Your task to perform on an android device: Open ESPN.com Image 0: 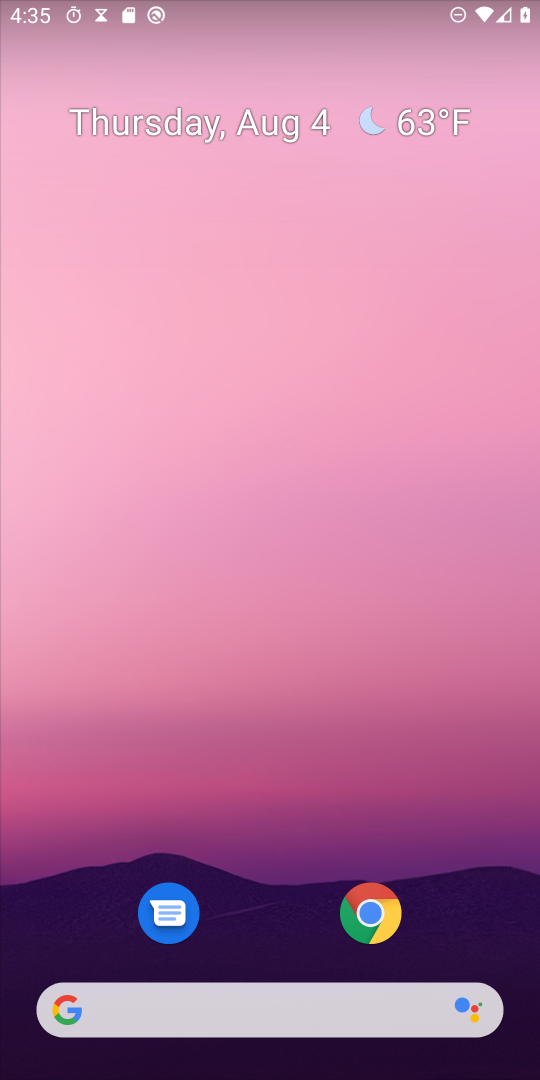
Step 0: drag from (361, 993) to (269, 25)
Your task to perform on an android device: Open ESPN.com Image 1: 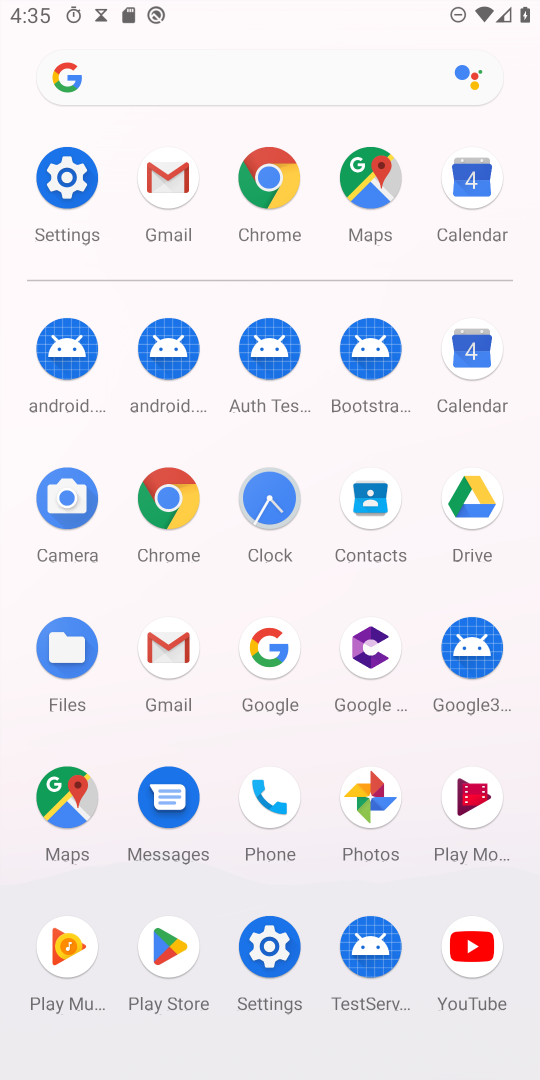
Step 1: click (175, 484)
Your task to perform on an android device: Open ESPN.com Image 2: 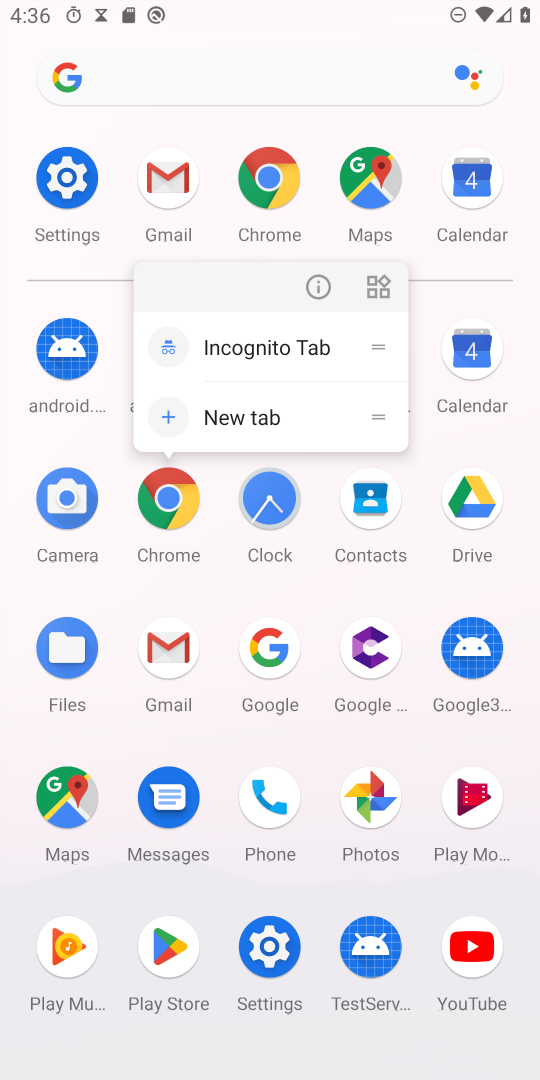
Step 2: click (171, 486)
Your task to perform on an android device: Open ESPN.com Image 3: 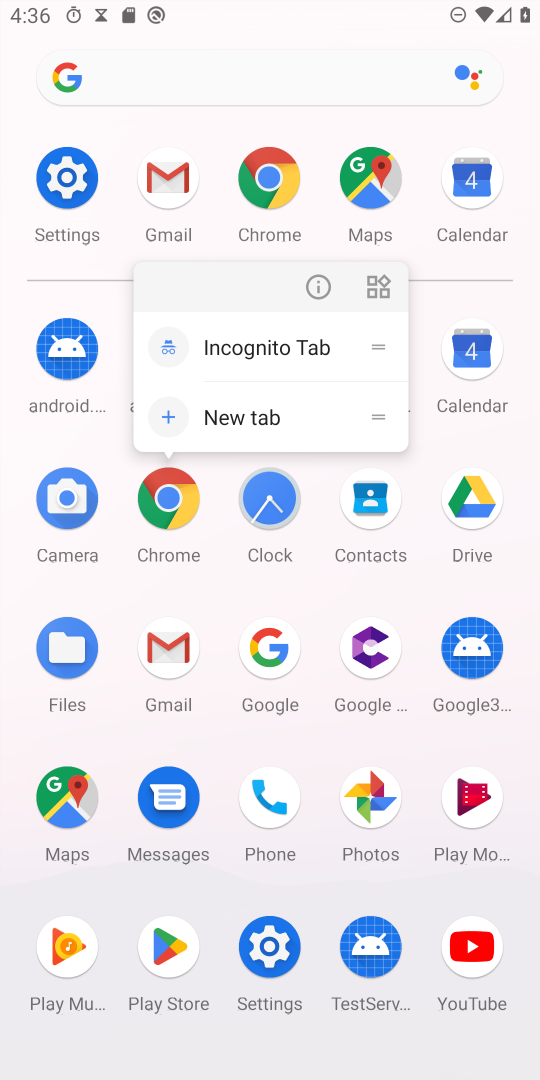
Step 3: click (166, 489)
Your task to perform on an android device: Open ESPN.com Image 4: 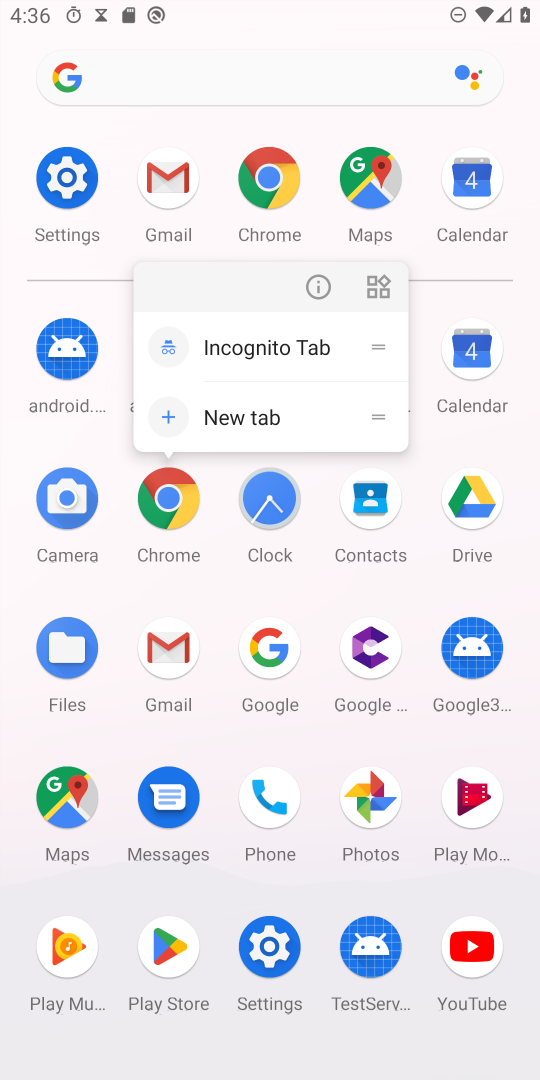
Step 4: click (167, 488)
Your task to perform on an android device: Open ESPN.com Image 5: 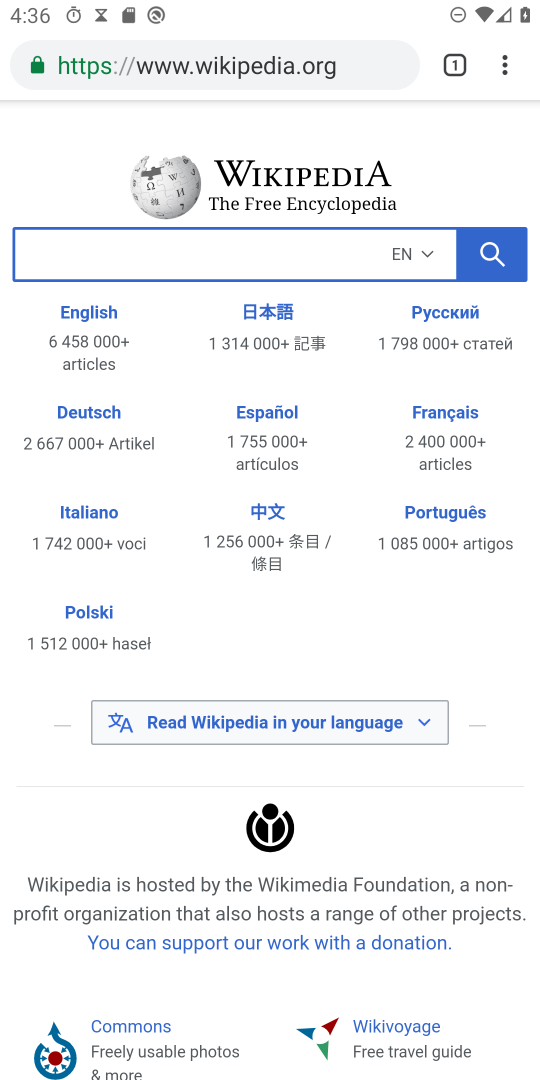
Step 5: drag from (499, 67) to (376, 103)
Your task to perform on an android device: Open ESPN.com Image 6: 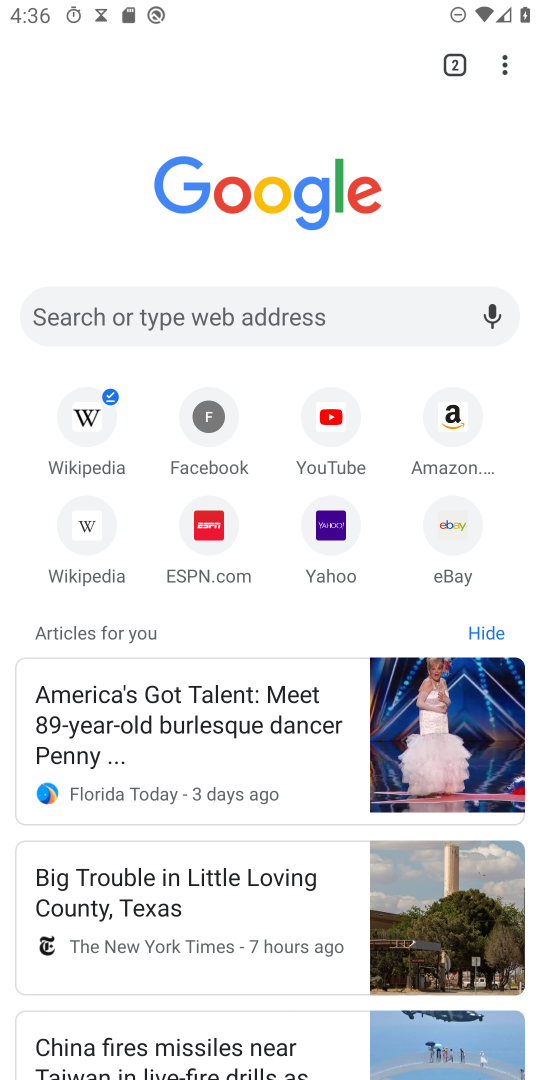
Step 6: click (214, 535)
Your task to perform on an android device: Open ESPN.com Image 7: 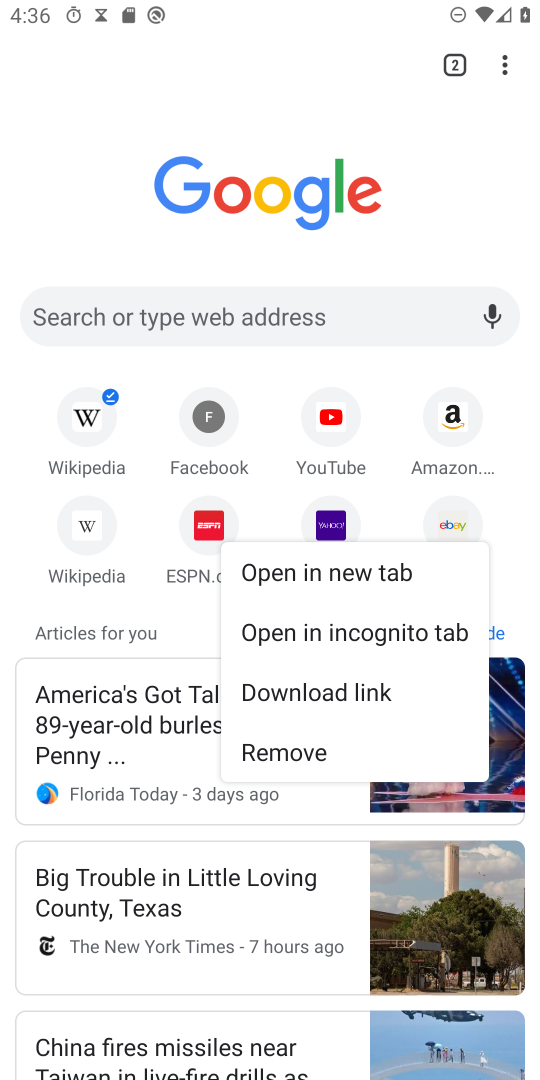
Step 7: click (342, 559)
Your task to perform on an android device: Open ESPN.com Image 8: 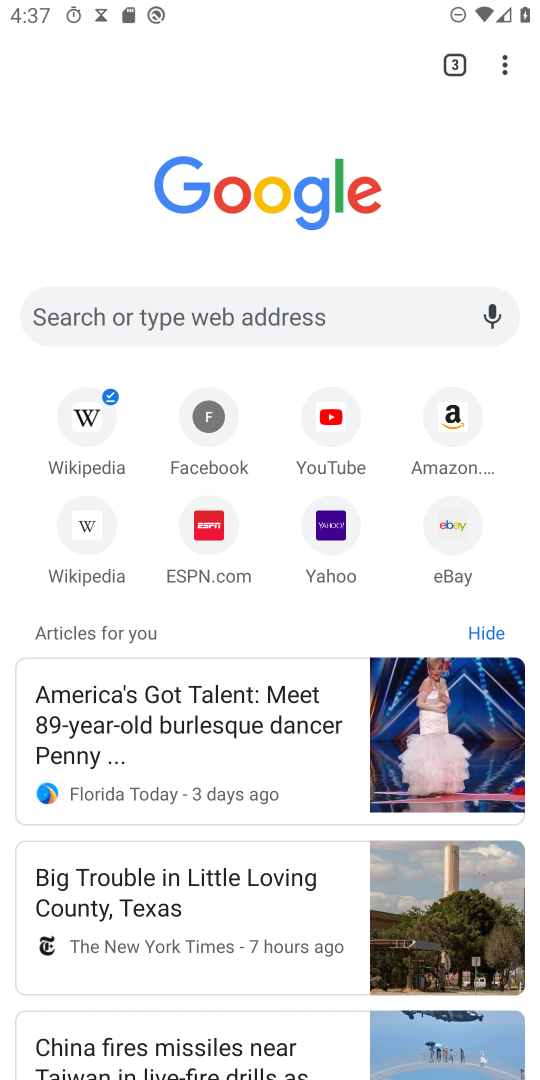
Step 8: click (216, 536)
Your task to perform on an android device: Open ESPN.com Image 9: 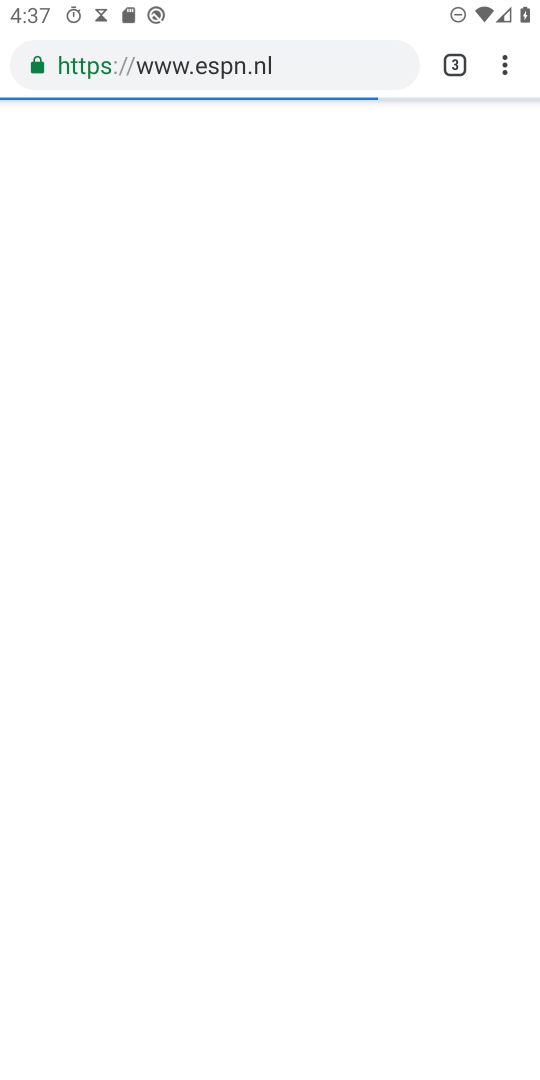
Step 9: task complete